Your task to perform on an android device: empty trash in google photos Image 0: 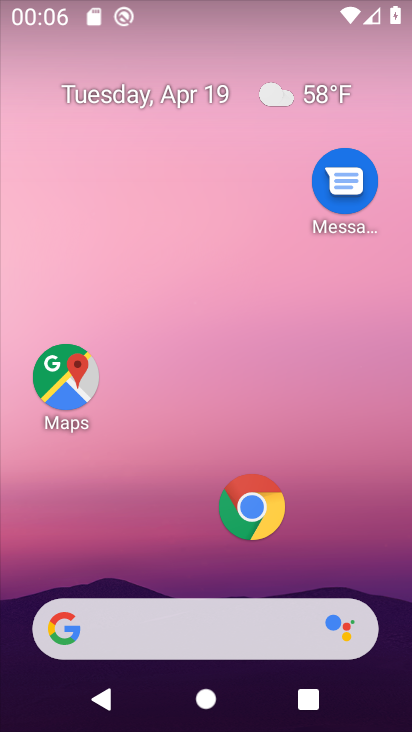
Step 0: drag from (180, 565) to (269, 27)
Your task to perform on an android device: empty trash in google photos Image 1: 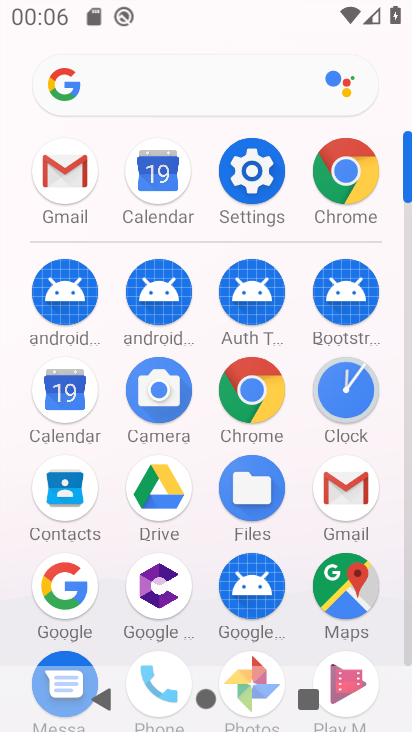
Step 1: drag from (199, 616) to (255, 146)
Your task to perform on an android device: empty trash in google photos Image 2: 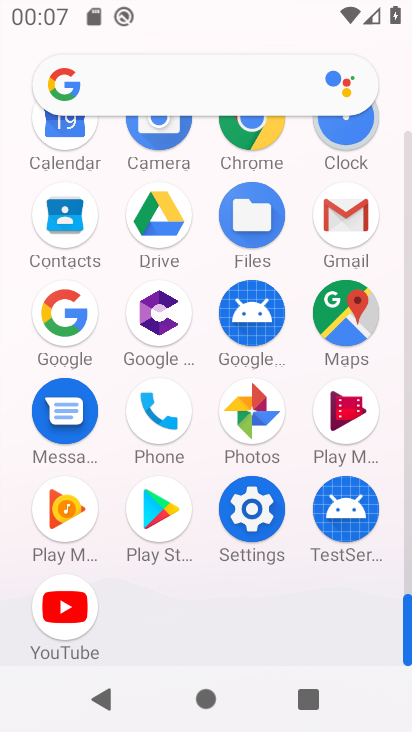
Step 2: click (247, 496)
Your task to perform on an android device: empty trash in google photos Image 3: 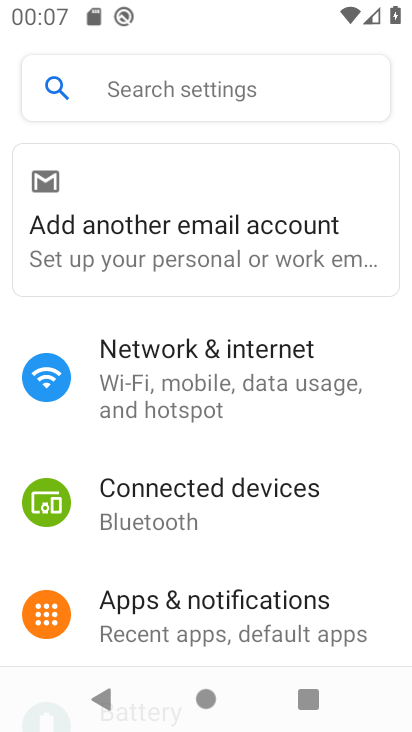
Step 3: click (114, 693)
Your task to perform on an android device: empty trash in google photos Image 4: 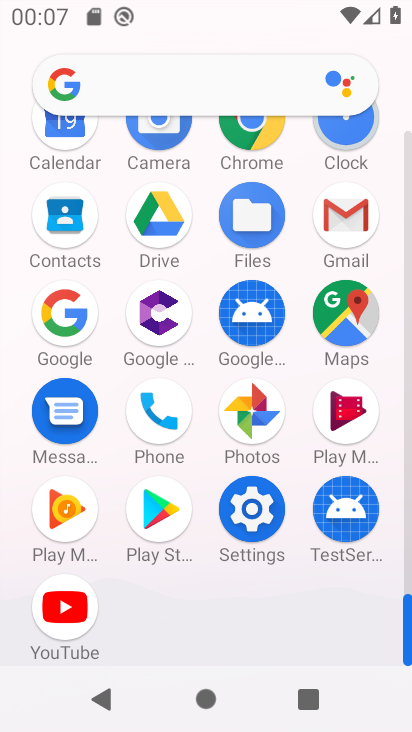
Step 4: click (254, 439)
Your task to perform on an android device: empty trash in google photos Image 5: 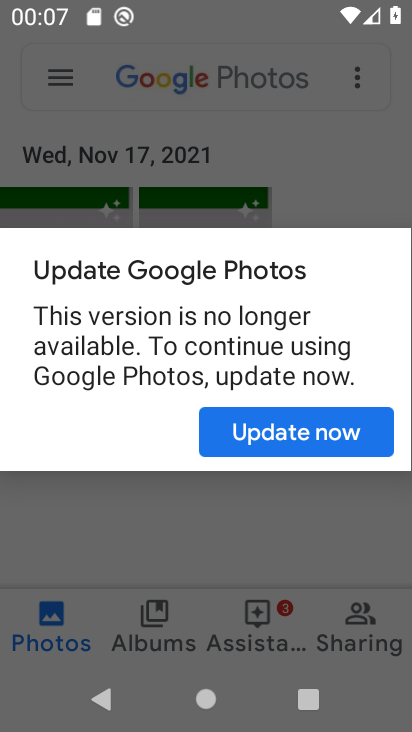
Step 5: click (254, 431)
Your task to perform on an android device: empty trash in google photos Image 6: 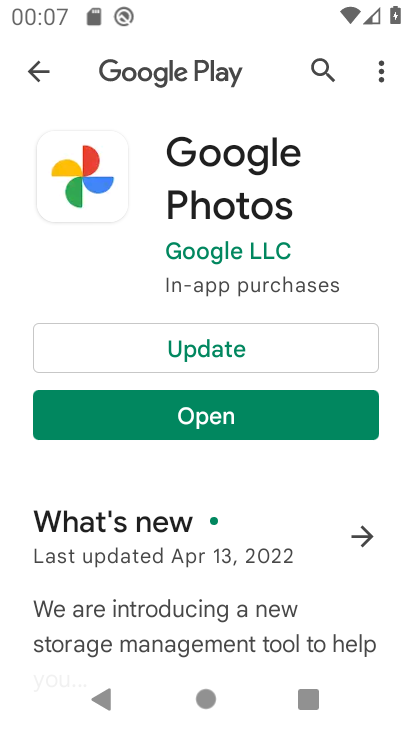
Step 6: click (207, 342)
Your task to perform on an android device: empty trash in google photos Image 7: 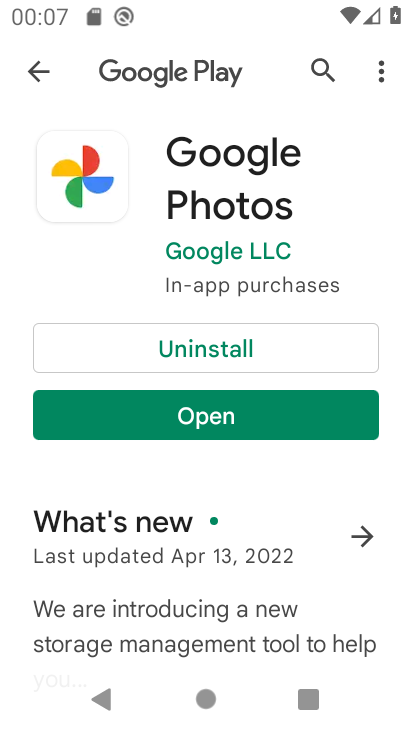
Step 7: click (228, 404)
Your task to perform on an android device: empty trash in google photos Image 8: 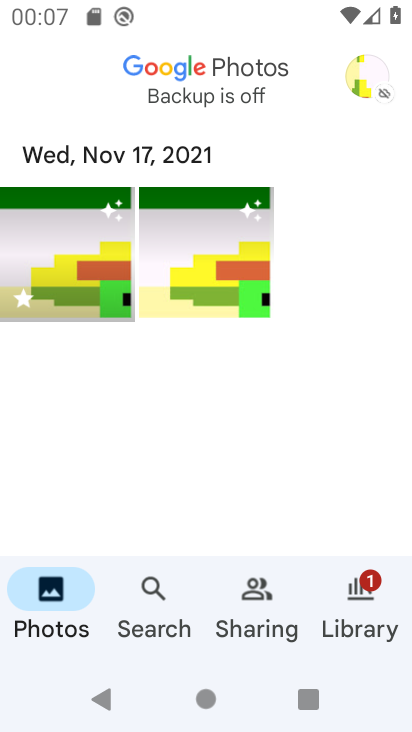
Step 8: click (358, 588)
Your task to perform on an android device: empty trash in google photos Image 9: 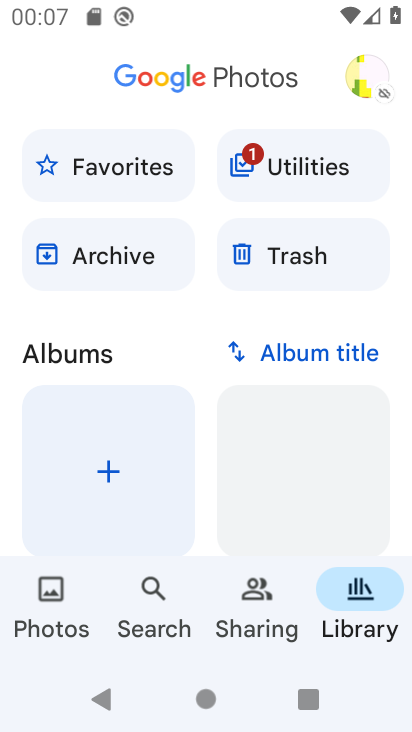
Step 9: click (298, 243)
Your task to perform on an android device: empty trash in google photos Image 10: 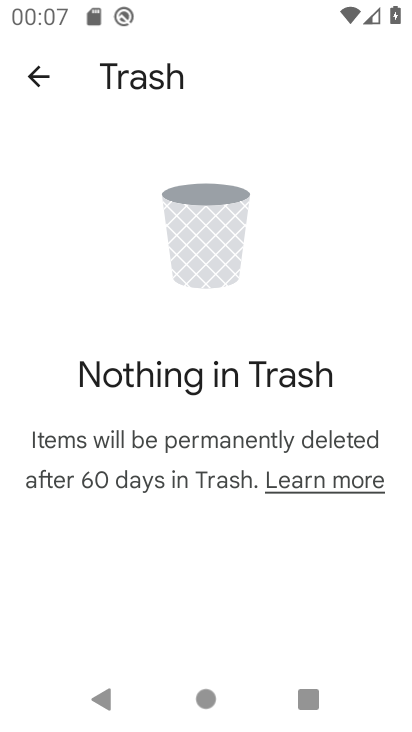
Step 10: task complete